Your task to perform on an android device: turn pop-ups on in chrome Image 0: 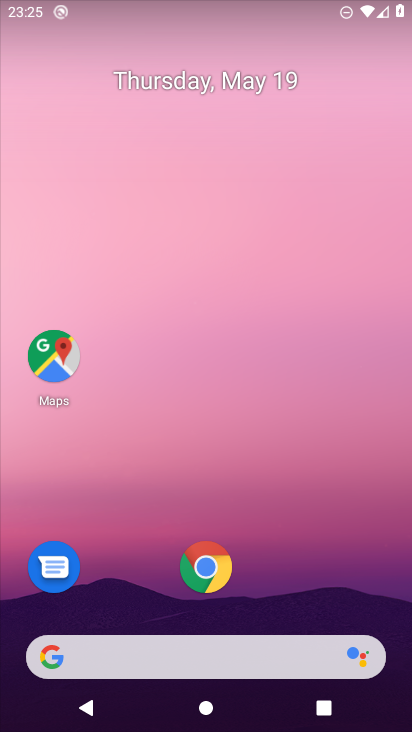
Step 0: click (200, 568)
Your task to perform on an android device: turn pop-ups on in chrome Image 1: 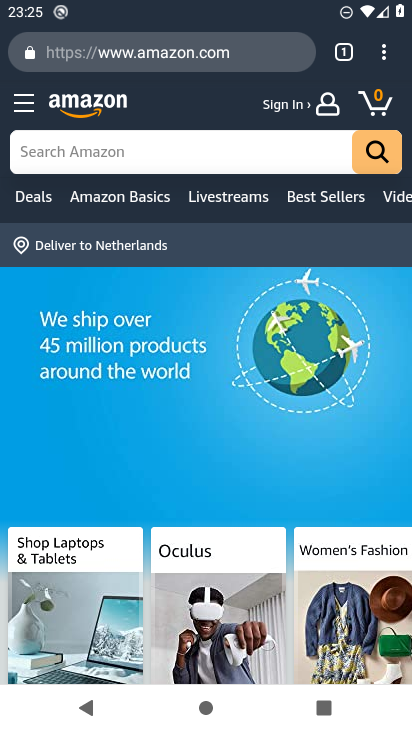
Step 1: click (386, 50)
Your task to perform on an android device: turn pop-ups on in chrome Image 2: 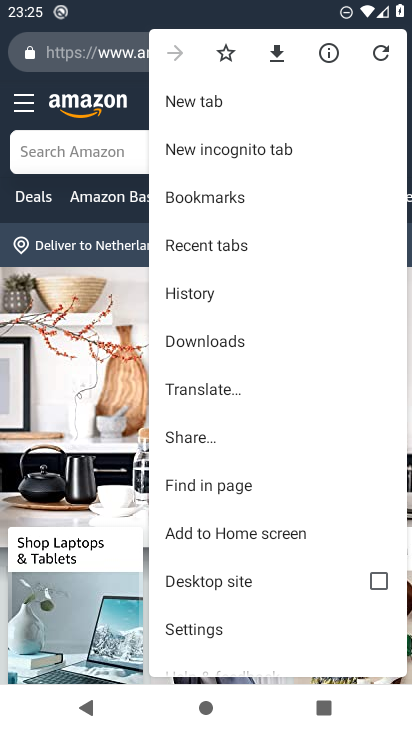
Step 2: click (237, 626)
Your task to perform on an android device: turn pop-ups on in chrome Image 3: 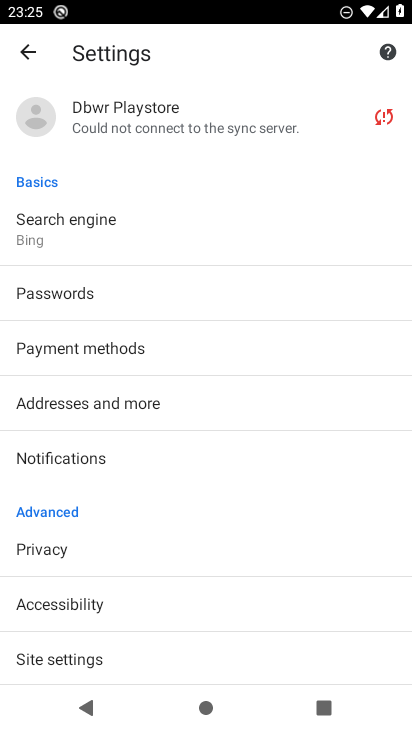
Step 3: click (130, 653)
Your task to perform on an android device: turn pop-ups on in chrome Image 4: 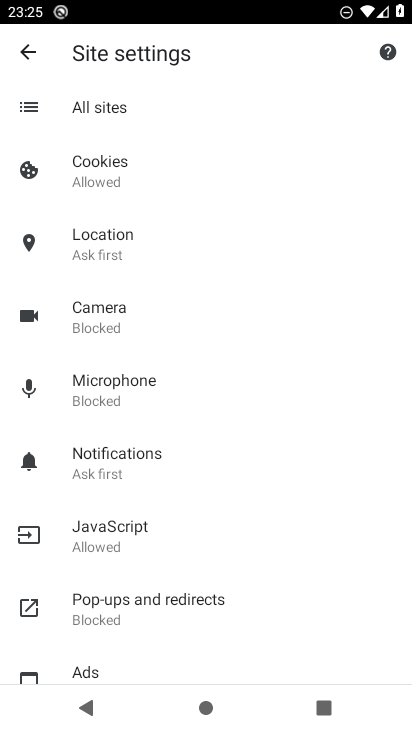
Step 4: click (159, 615)
Your task to perform on an android device: turn pop-ups on in chrome Image 5: 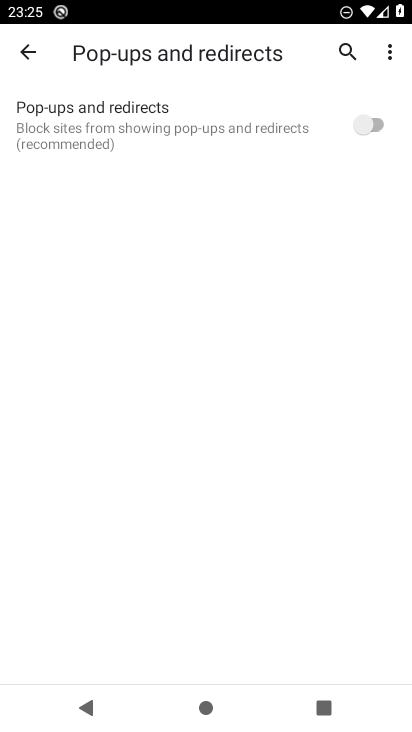
Step 5: click (366, 117)
Your task to perform on an android device: turn pop-ups on in chrome Image 6: 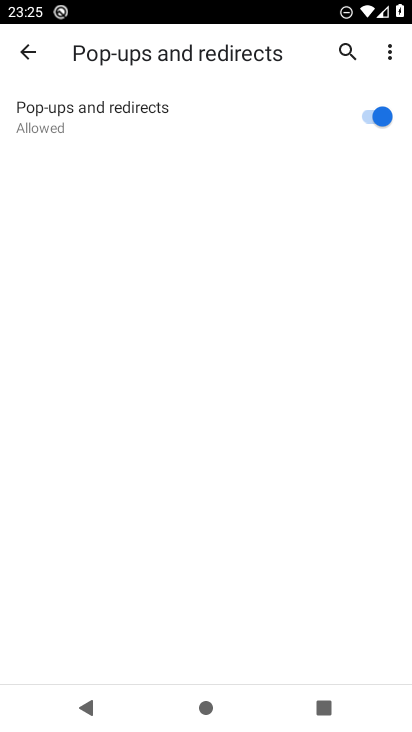
Step 6: task complete